Your task to perform on an android device: Show me popular games on the Play Store Image 0: 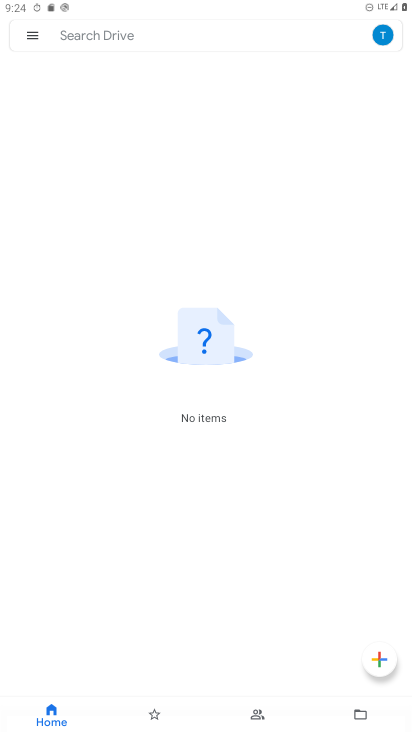
Step 0: press home button
Your task to perform on an android device: Show me popular games on the Play Store Image 1: 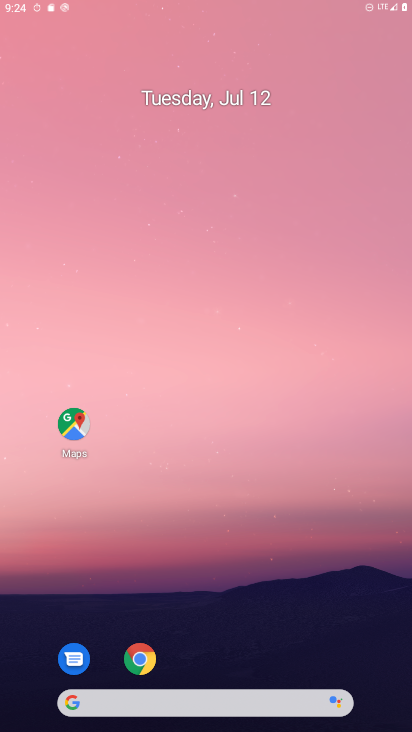
Step 1: drag from (391, 684) to (275, 29)
Your task to perform on an android device: Show me popular games on the Play Store Image 2: 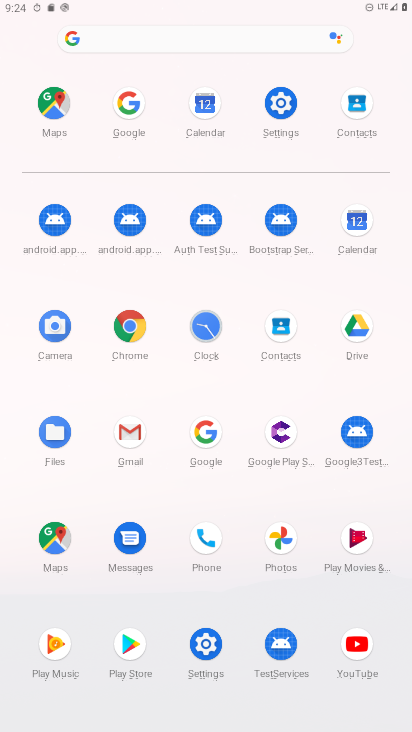
Step 2: click (125, 656)
Your task to perform on an android device: Show me popular games on the Play Store Image 3: 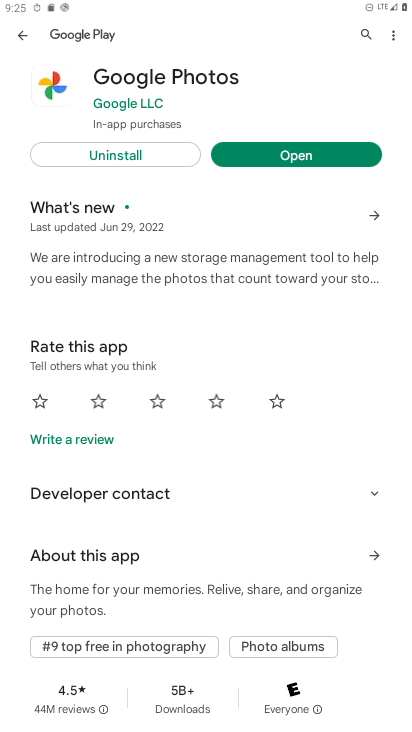
Step 3: press back button
Your task to perform on an android device: Show me popular games on the Play Store Image 4: 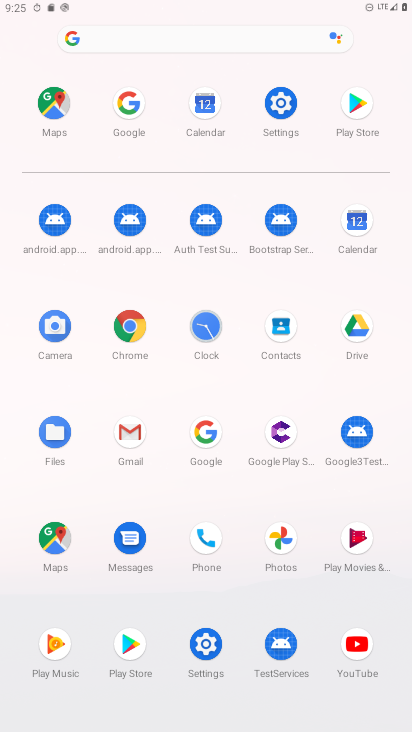
Step 4: click (124, 665)
Your task to perform on an android device: Show me popular games on the Play Store Image 5: 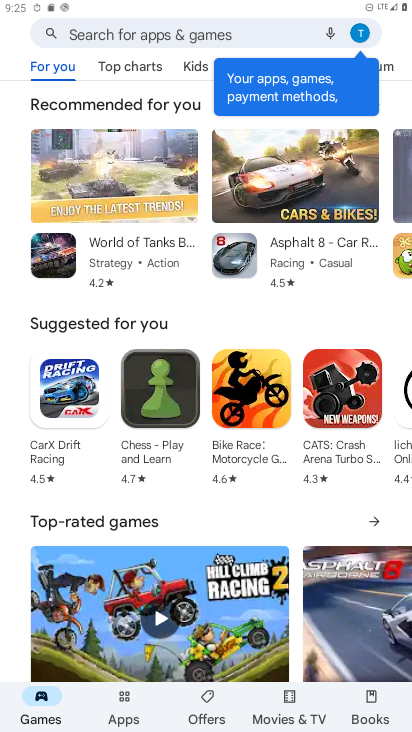
Step 5: task complete